Your task to perform on an android device: find which apps use the phone's location Image 0: 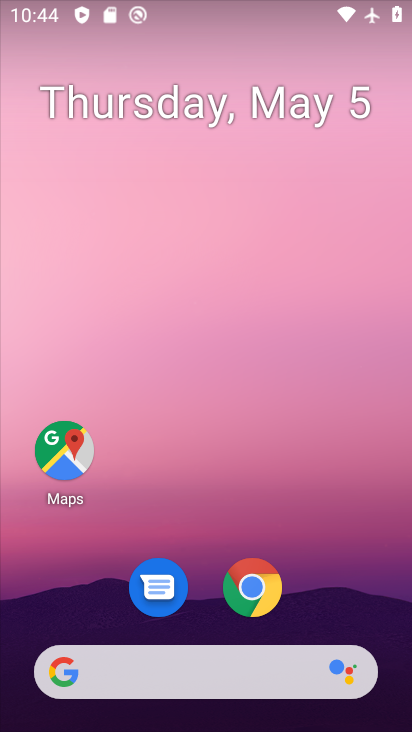
Step 0: drag from (294, 558) to (233, 8)
Your task to perform on an android device: find which apps use the phone's location Image 1: 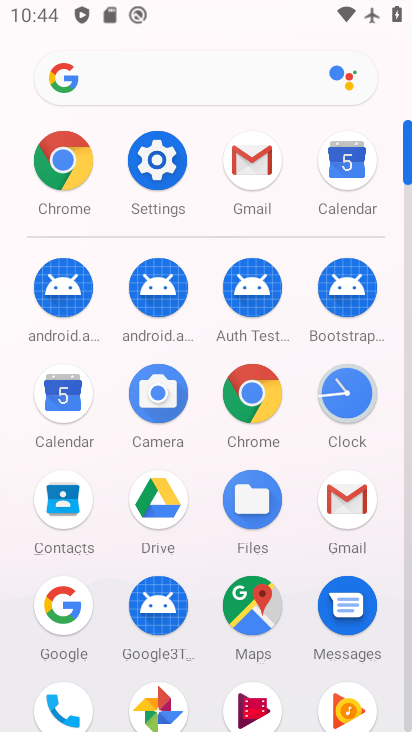
Step 1: click (160, 161)
Your task to perform on an android device: find which apps use the phone's location Image 2: 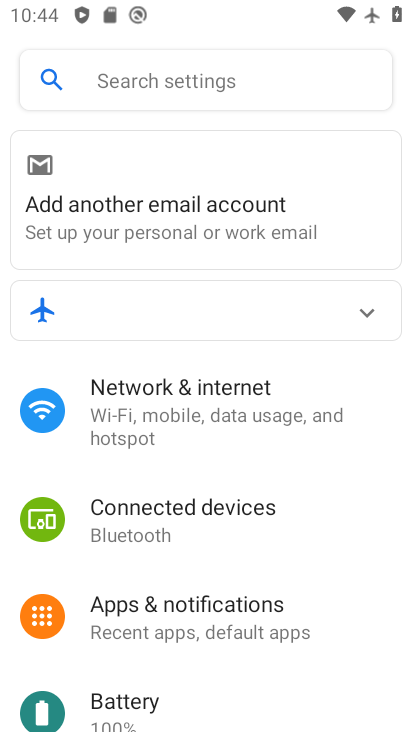
Step 2: drag from (336, 528) to (293, 49)
Your task to perform on an android device: find which apps use the phone's location Image 3: 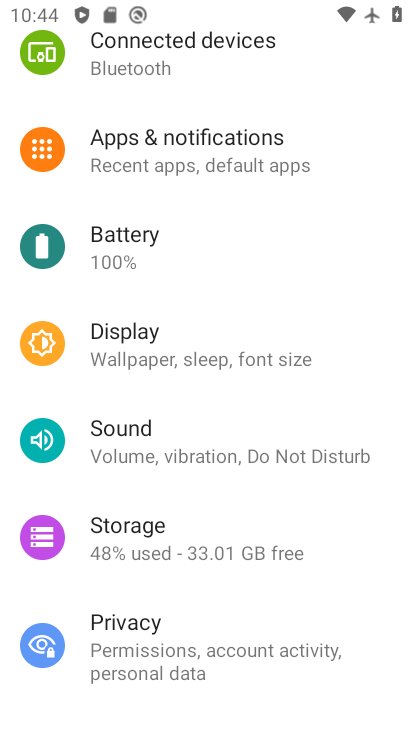
Step 3: drag from (203, 577) to (183, 120)
Your task to perform on an android device: find which apps use the phone's location Image 4: 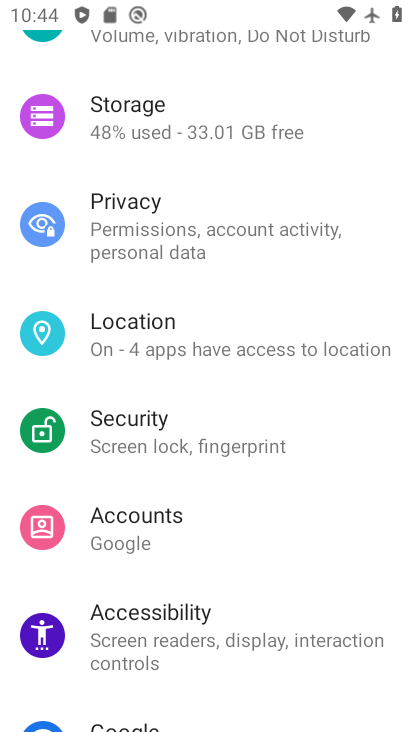
Step 4: click (196, 355)
Your task to perform on an android device: find which apps use the phone's location Image 5: 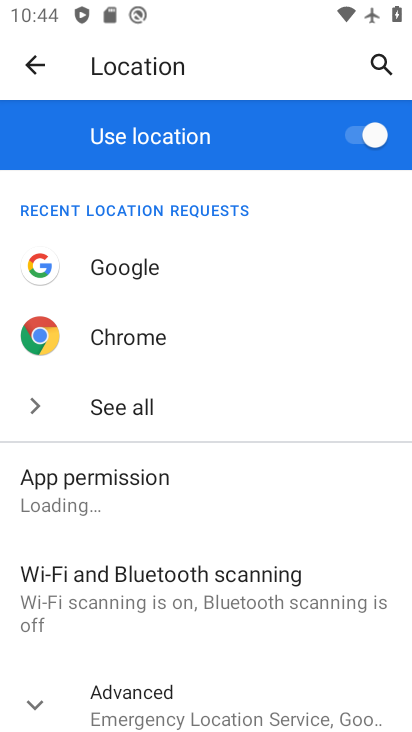
Step 5: click (116, 707)
Your task to perform on an android device: find which apps use the phone's location Image 6: 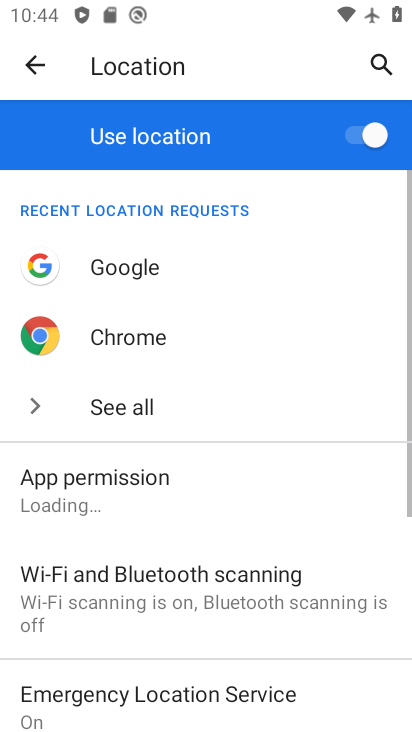
Step 6: drag from (280, 576) to (285, 106)
Your task to perform on an android device: find which apps use the phone's location Image 7: 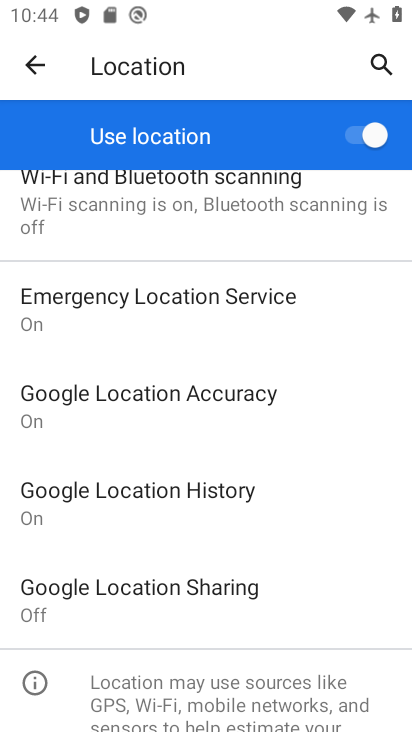
Step 7: drag from (241, 207) to (257, 637)
Your task to perform on an android device: find which apps use the phone's location Image 8: 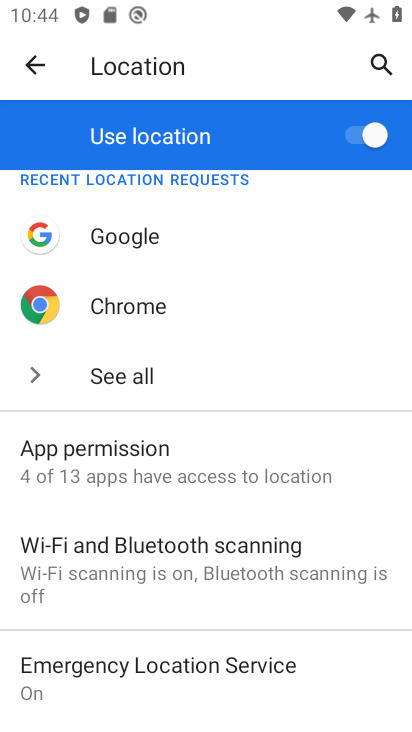
Step 8: click (181, 479)
Your task to perform on an android device: find which apps use the phone's location Image 9: 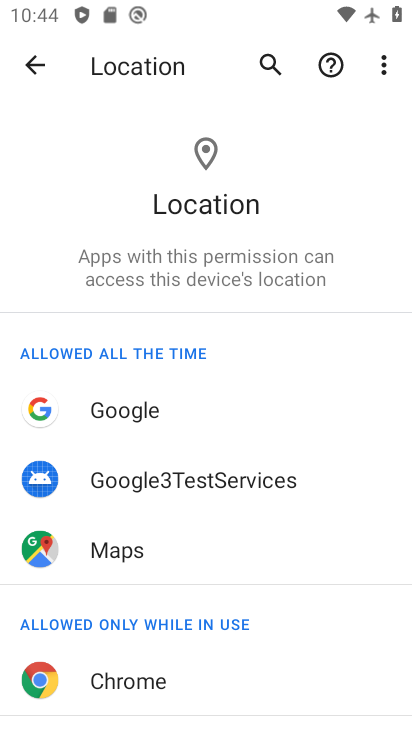
Step 9: task complete